Your task to perform on an android device: Open the calendar app, open the side menu, and click the "Day" option Image 0: 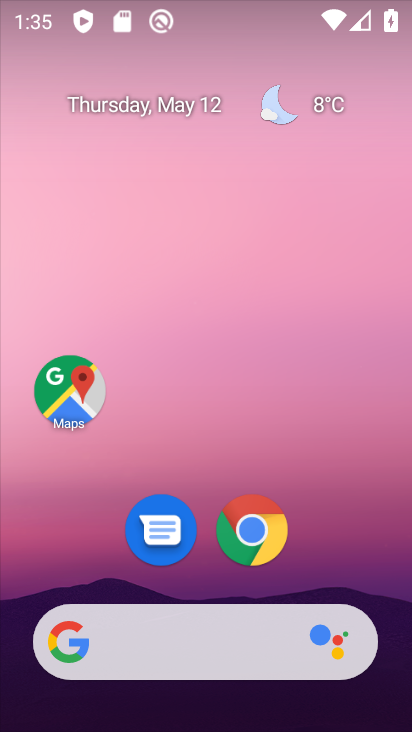
Step 0: press home button
Your task to perform on an android device: Open the calendar app, open the side menu, and click the "Day" option Image 1: 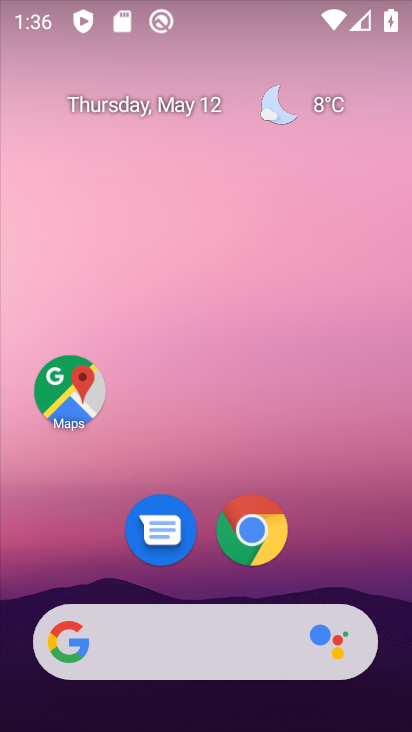
Step 1: drag from (69, 613) to (284, 167)
Your task to perform on an android device: Open the calendar app, open the side menu, and click the "Day" option Image 2: 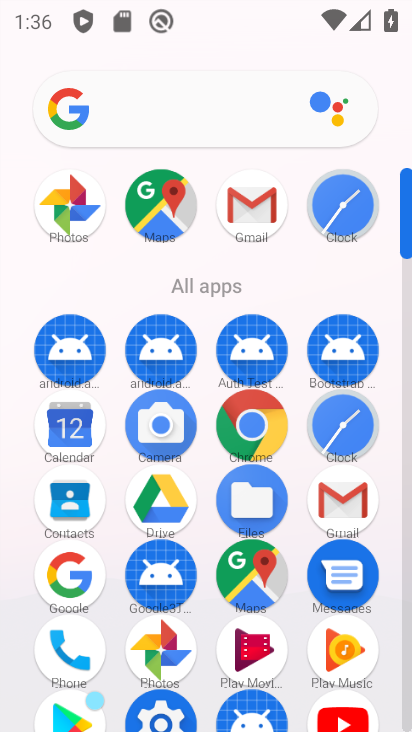
Step 2: click (60, 428)
Your task to perform on an android device: Open the calendar app, open the side menu, and click the "Day" option Image 3: 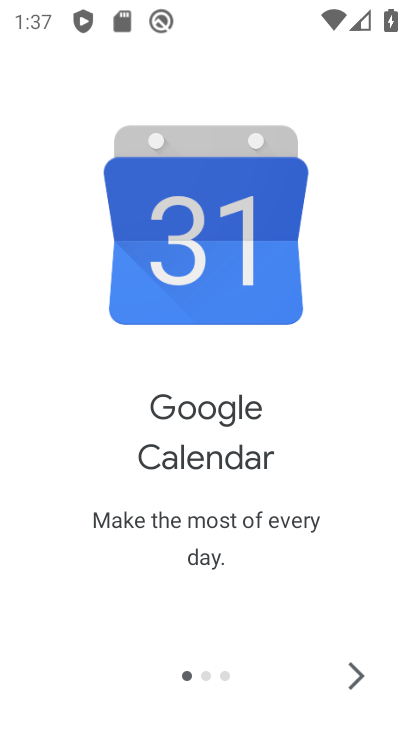
Step 3: click (359, 672)
Your task to perform on an android device: Open the calendar app, open the side menu, and click the "Day" option Image 4: 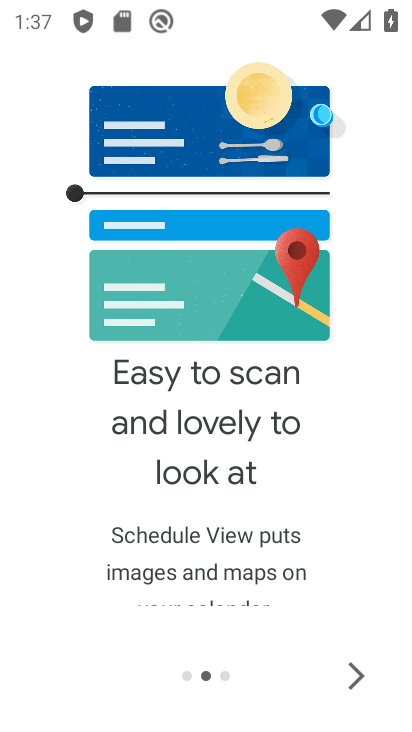
Step 4: click (359, 671)
Your task to perform on an android device: Open the calendar app, open the side menu, and click the "Day" option Image 5: 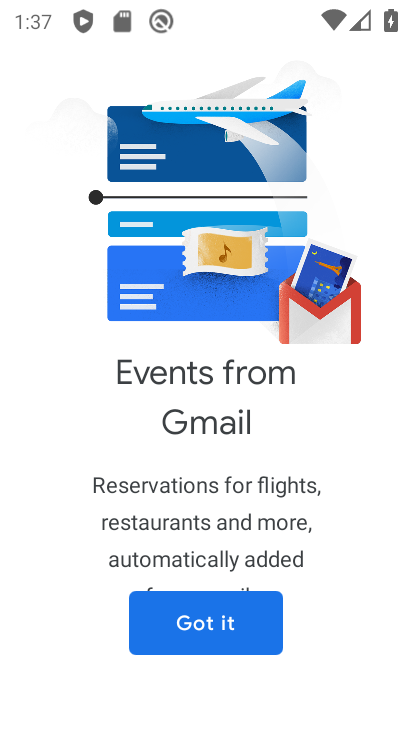
Step 5: click (250, 621)
Your task to perform on an android device: Open the calendar app, open the side menu, and click the "Day" option Image 6: 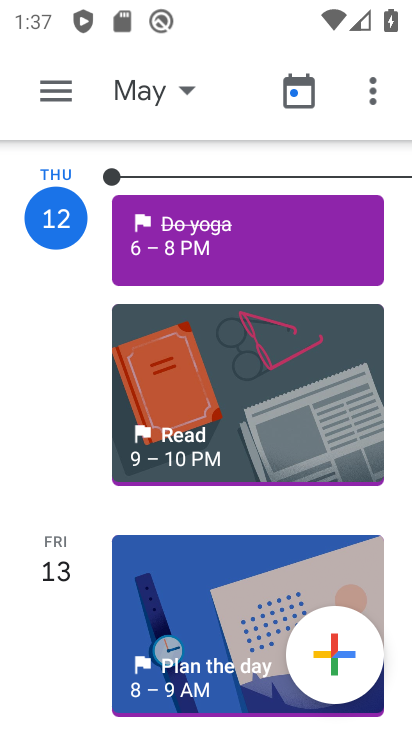
Step 6: click (60, 85)
Your task to perform on an android device: Open the calendar app, open the side menu, and click the "Day" option Image 7: 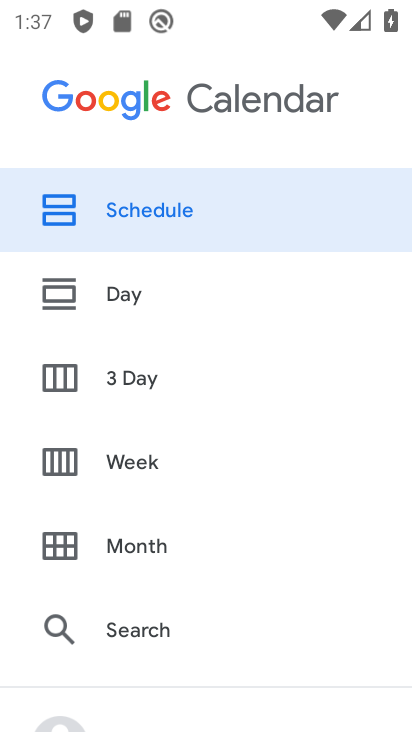
Step 7: click (146, 298)
Your task to perform on an android device: Open the calendar app, open the side menu, and click the "Day" option Image 8: 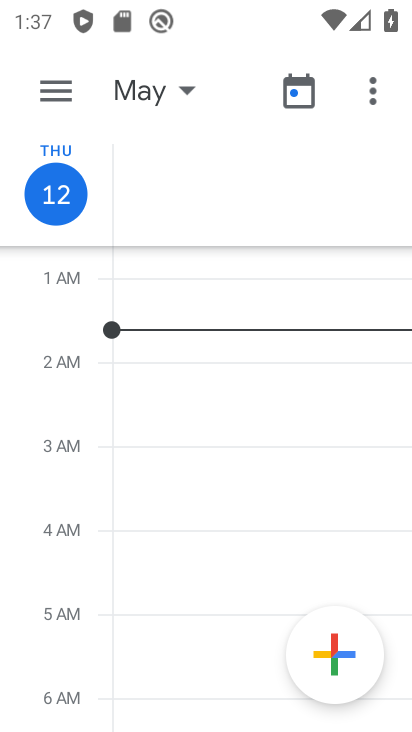
Step 8: task complete